Your task to perform on an android device: Check the news Image 0: 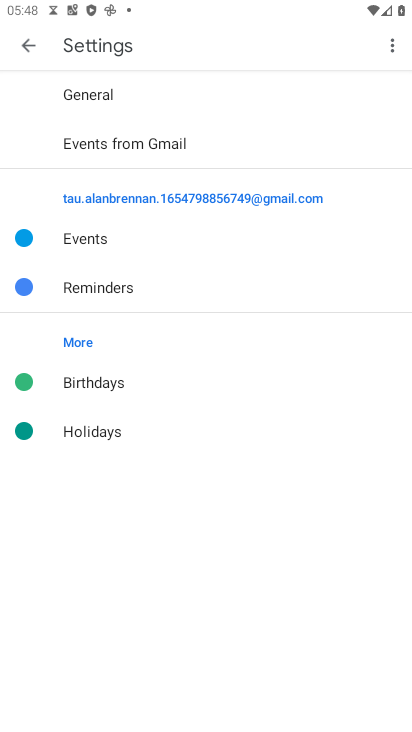
Step 0: press home button
Your task to perform on an android device: Check the news Image 1: 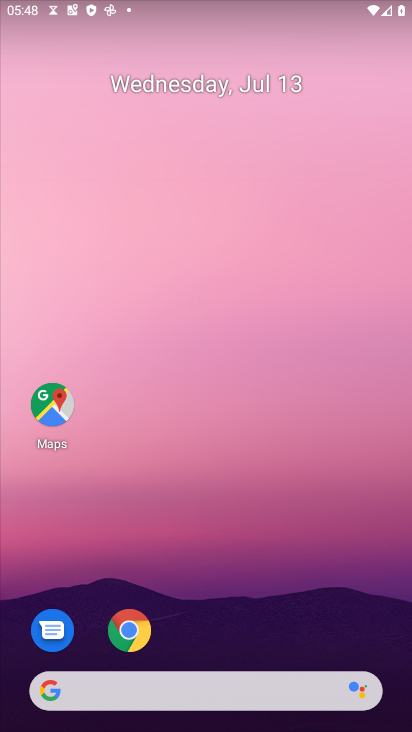
Step 1: drag from (296, 696) to (336, 22)
Your task to perform on an android device: Check the news Image 2: 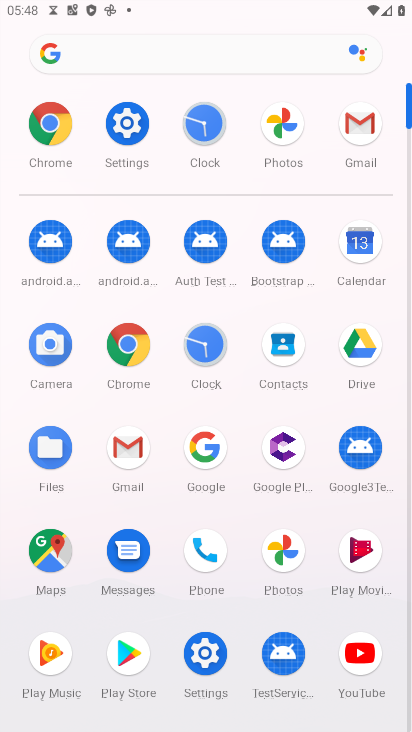
Step 2: click (142, 353)
Your task to perform on an android device: Check the news Image 3: 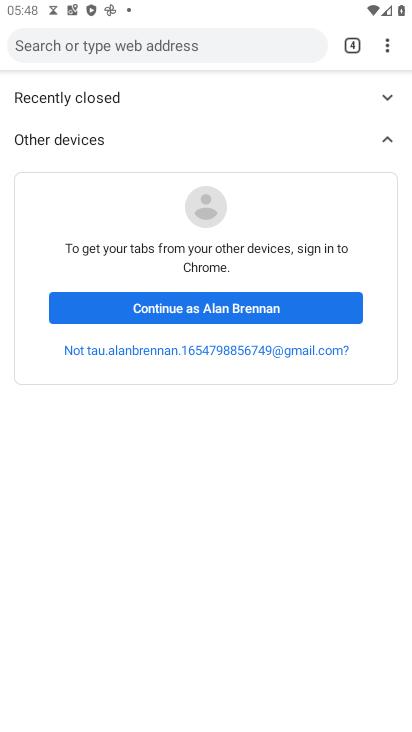
Step 3: click (182, 31)
Your task to perform on an android device: Check the news Image 4: 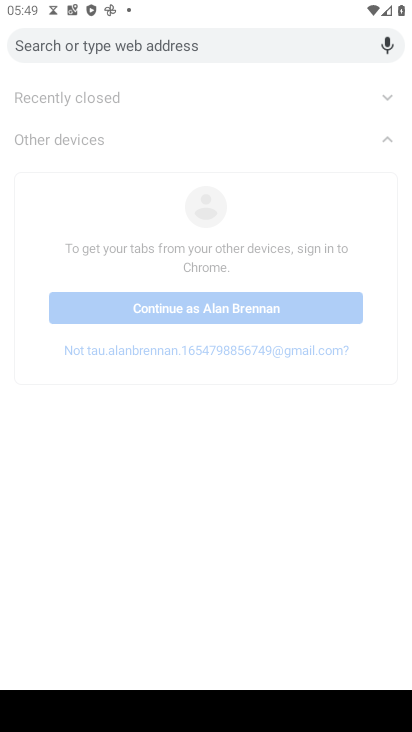
Step 4: type "check the news"
Your task to perform on an android device: Check the news Image 5: 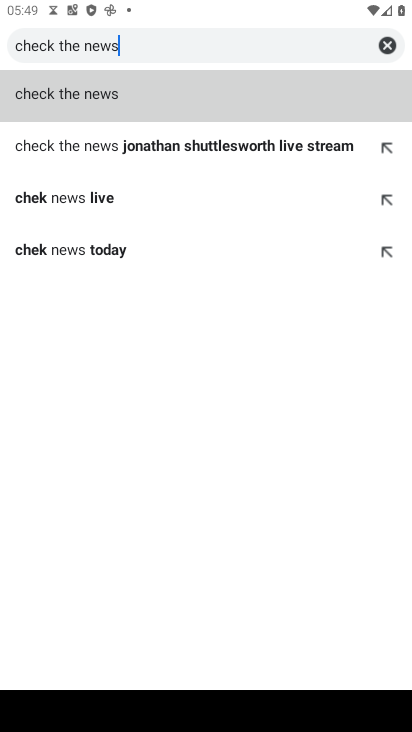
Step 5: click (345, 106)
Your task to perform on an android device: Check the news Image 6: 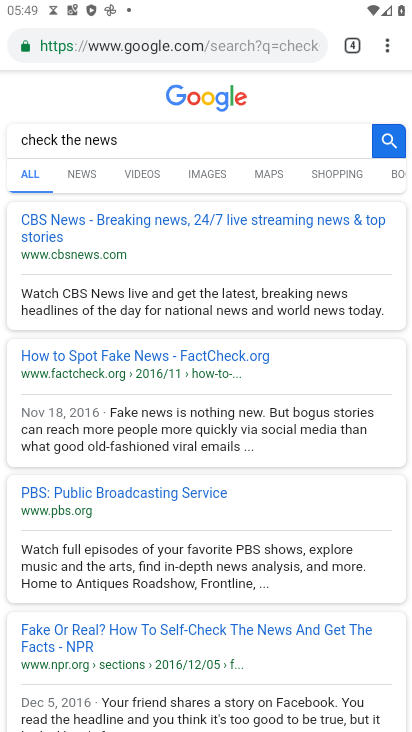
Step 6: task complete